Your task to perform on an android device: Go to calendar. Show me events next week Image 0: 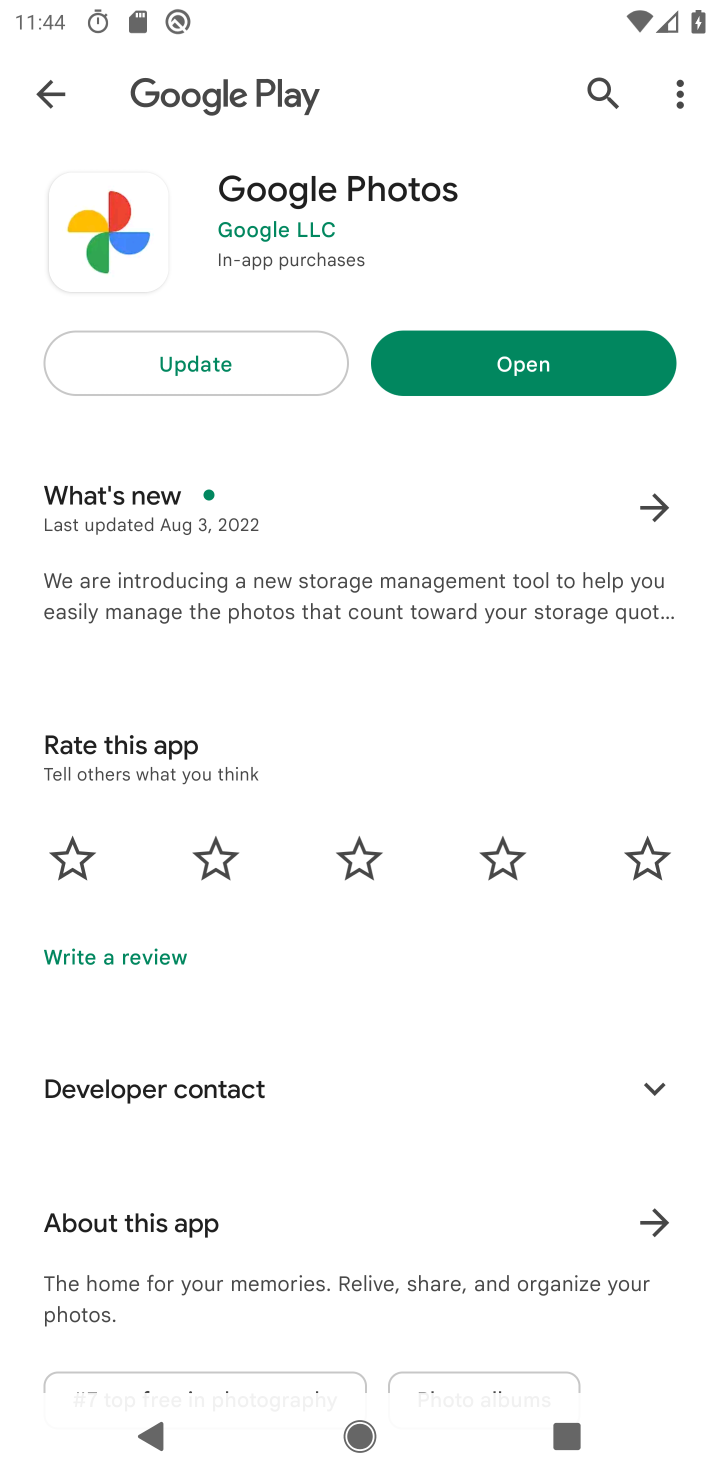
Step 0: press home button
Your task to perform on an android device: Go to calendar. Show me events next week Image 1: 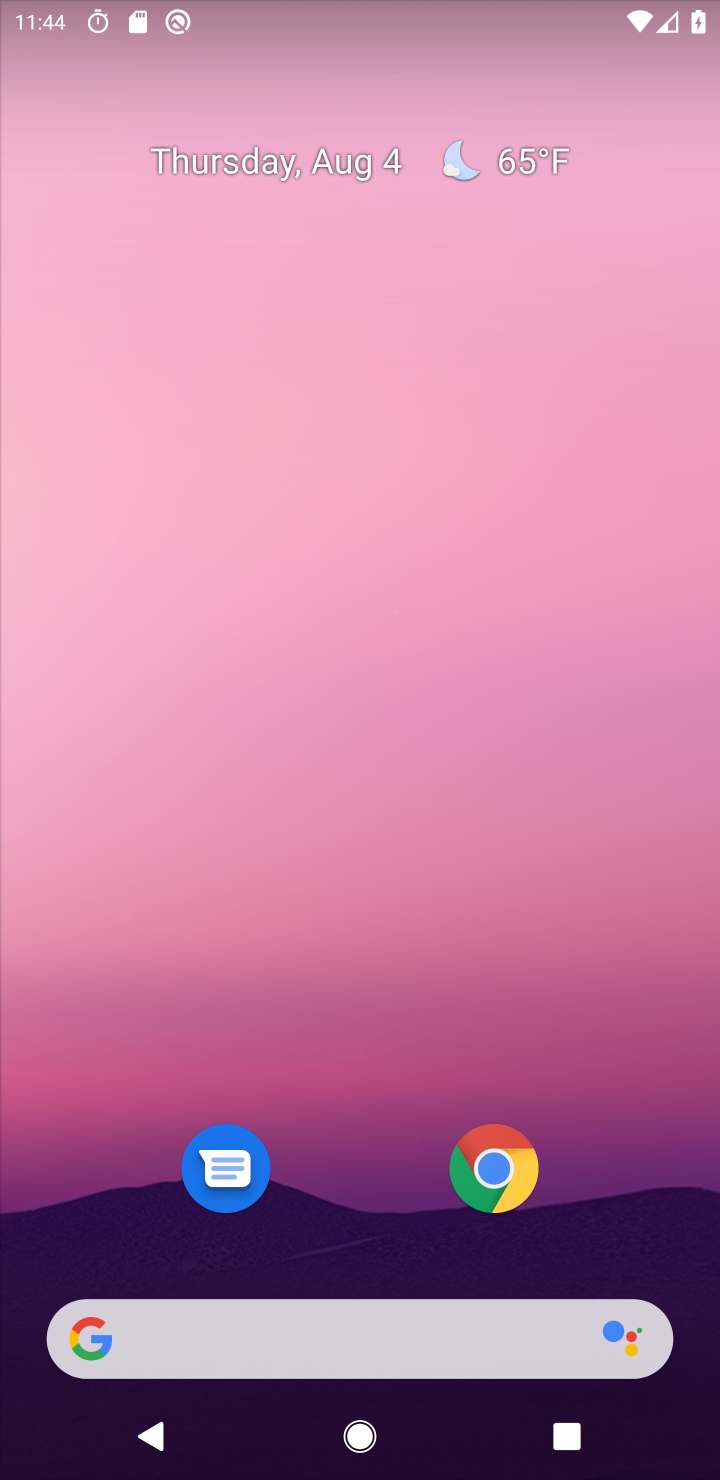
Step 1: drag from (351, 1273) to (343, 45)
Your task to perform on an android device: Go to calendar. Show me events next week Image 2: 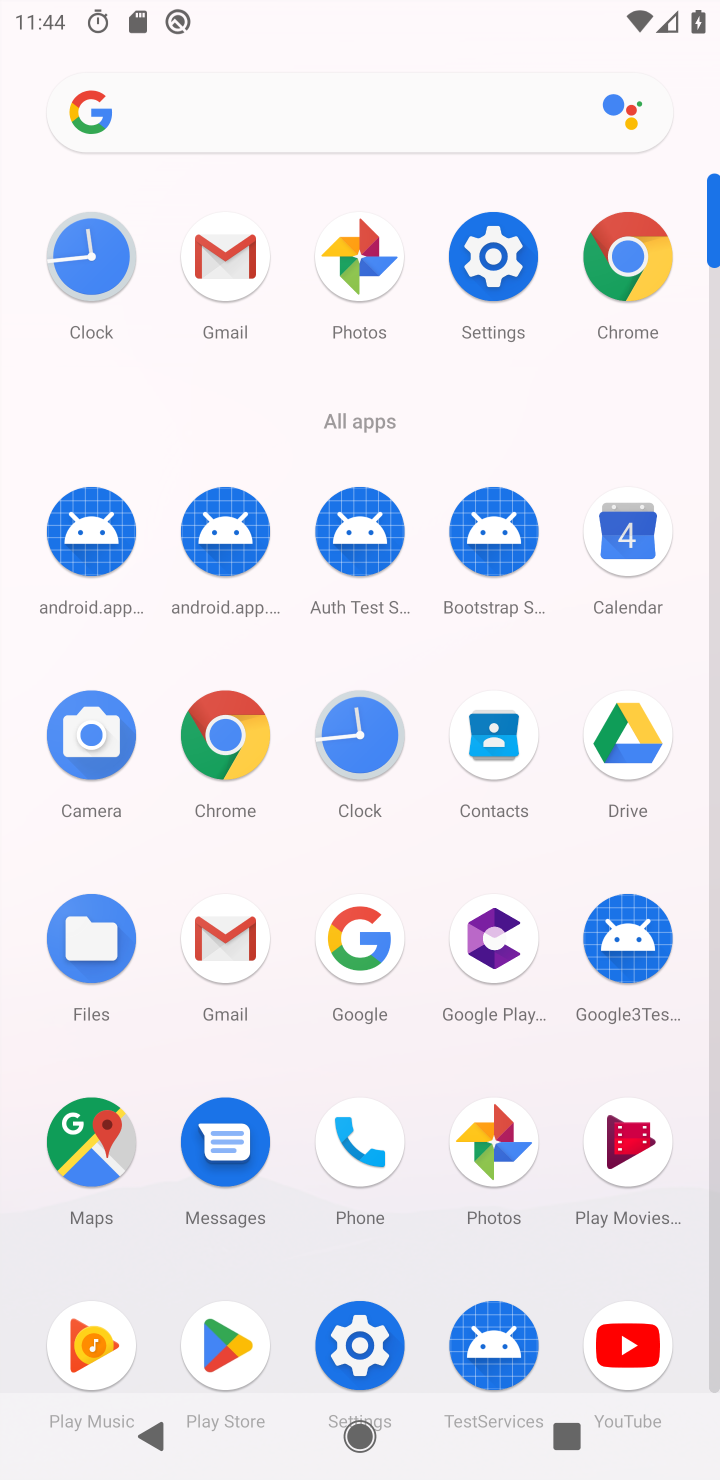
Step 2: click (630, 567)
Your task to perform on an android device: Go to calendar. Show me events next week Image 3: 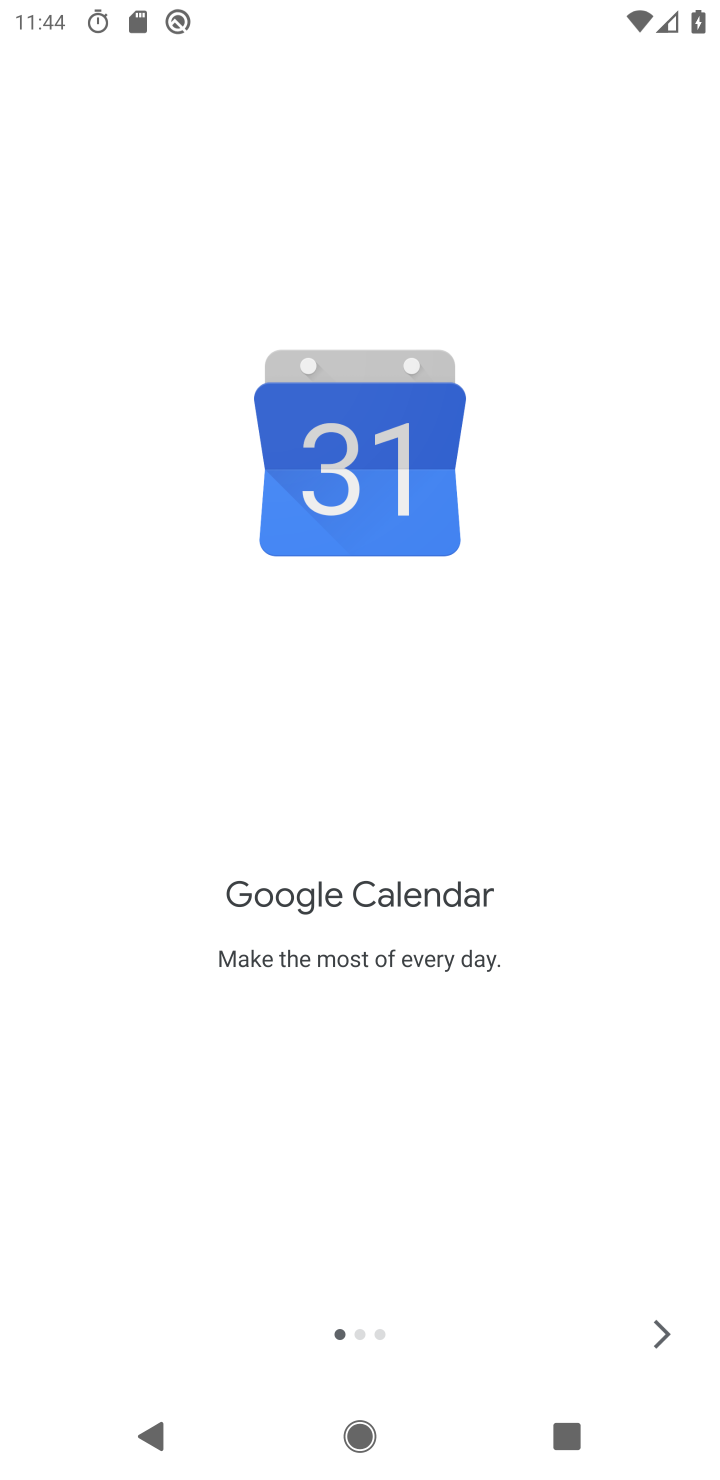
Step 3: click (653, 1313)
Your task to perform on an android device: Go to calendar. Show me events next week Image 4: 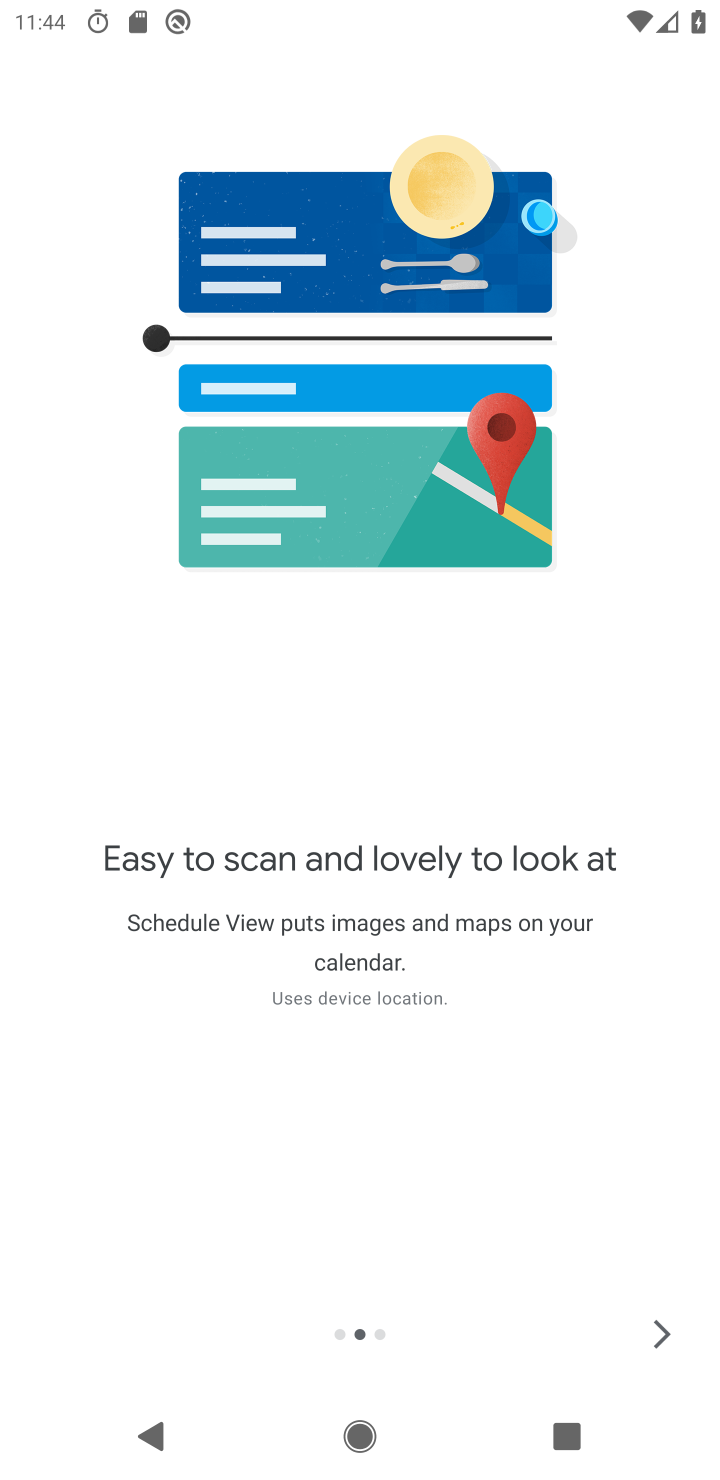
Step 4: click (651, 1337)
Your task to perform on an android device: Go to calendar. Show me events next week Image 5: 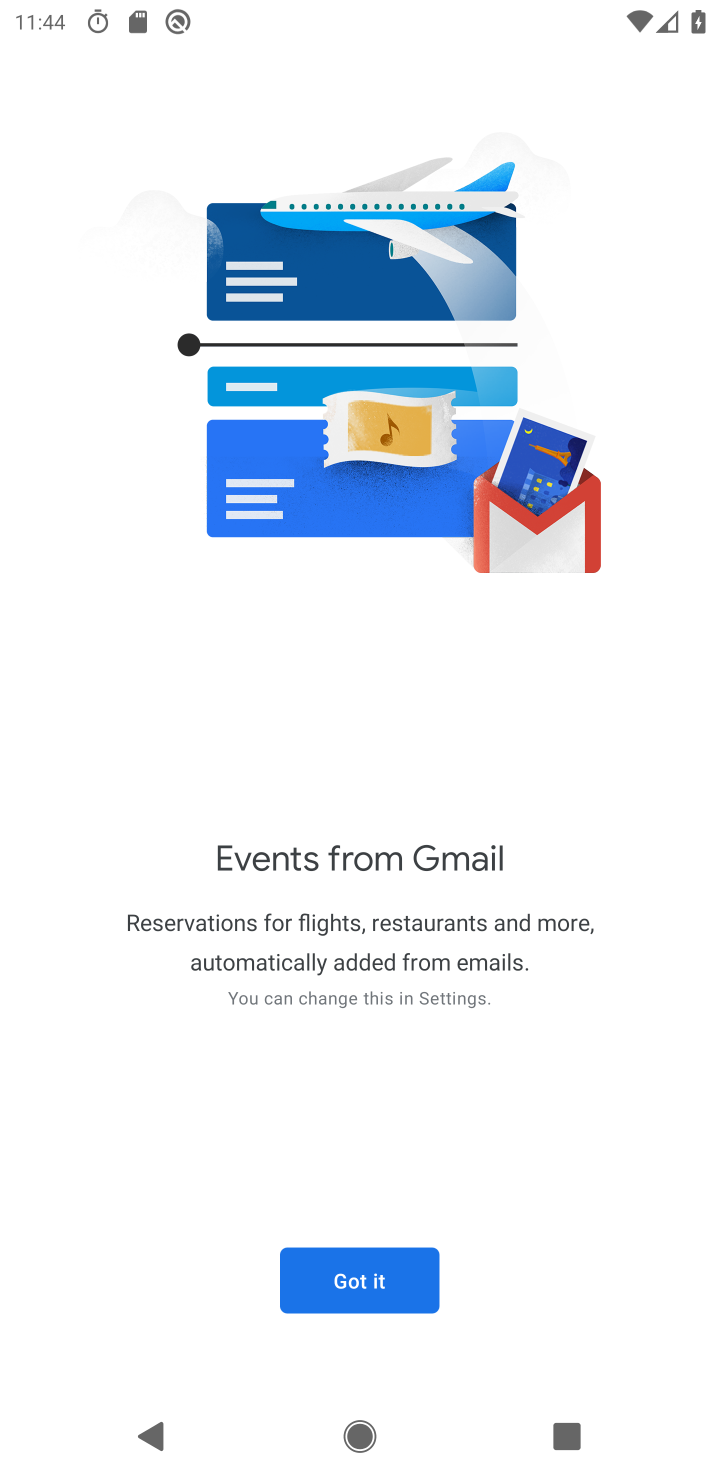
Step 5: click (349, 1294)
Your task to perform on an android device: Go to calendar. Show me events next week Image 6: 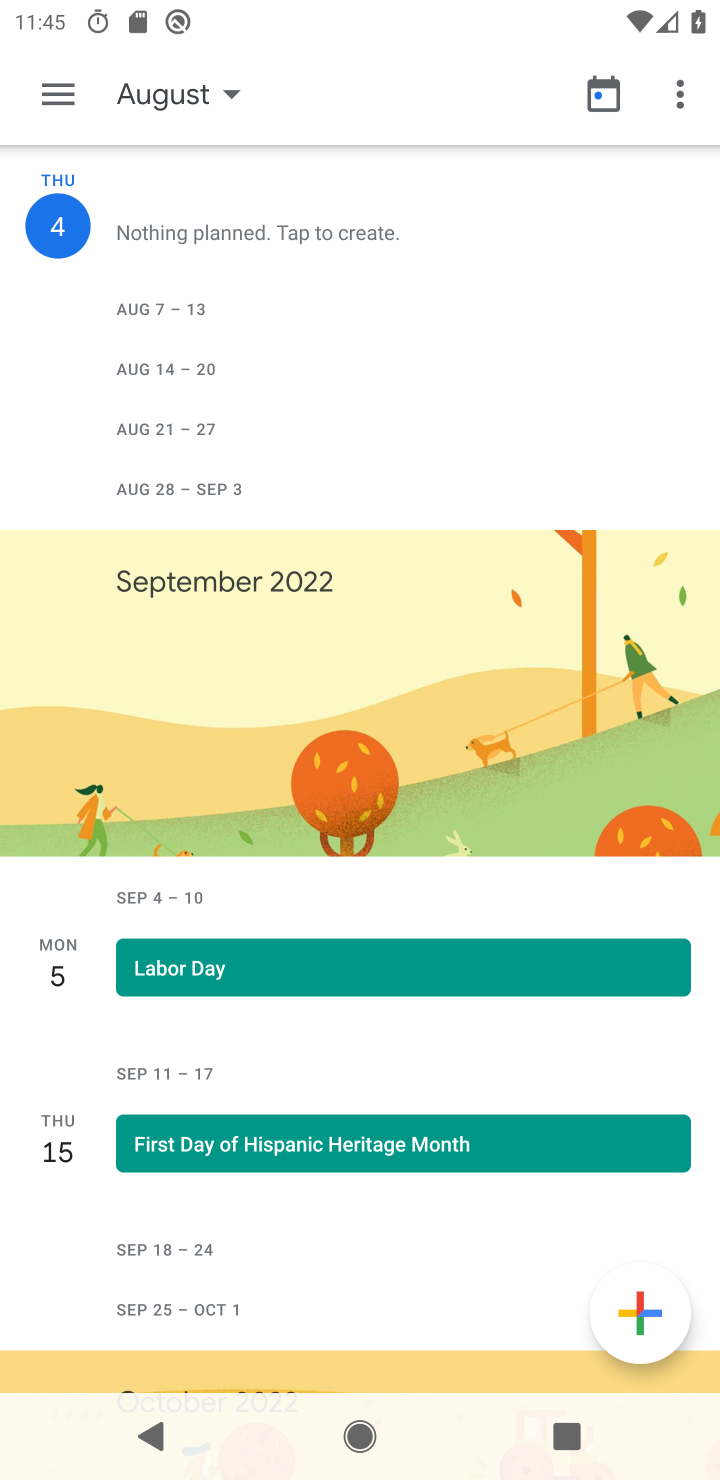
Step 6: click (51, 97)
Your task to perform on an android device: Go to calendar. Show me events next week Image 7: 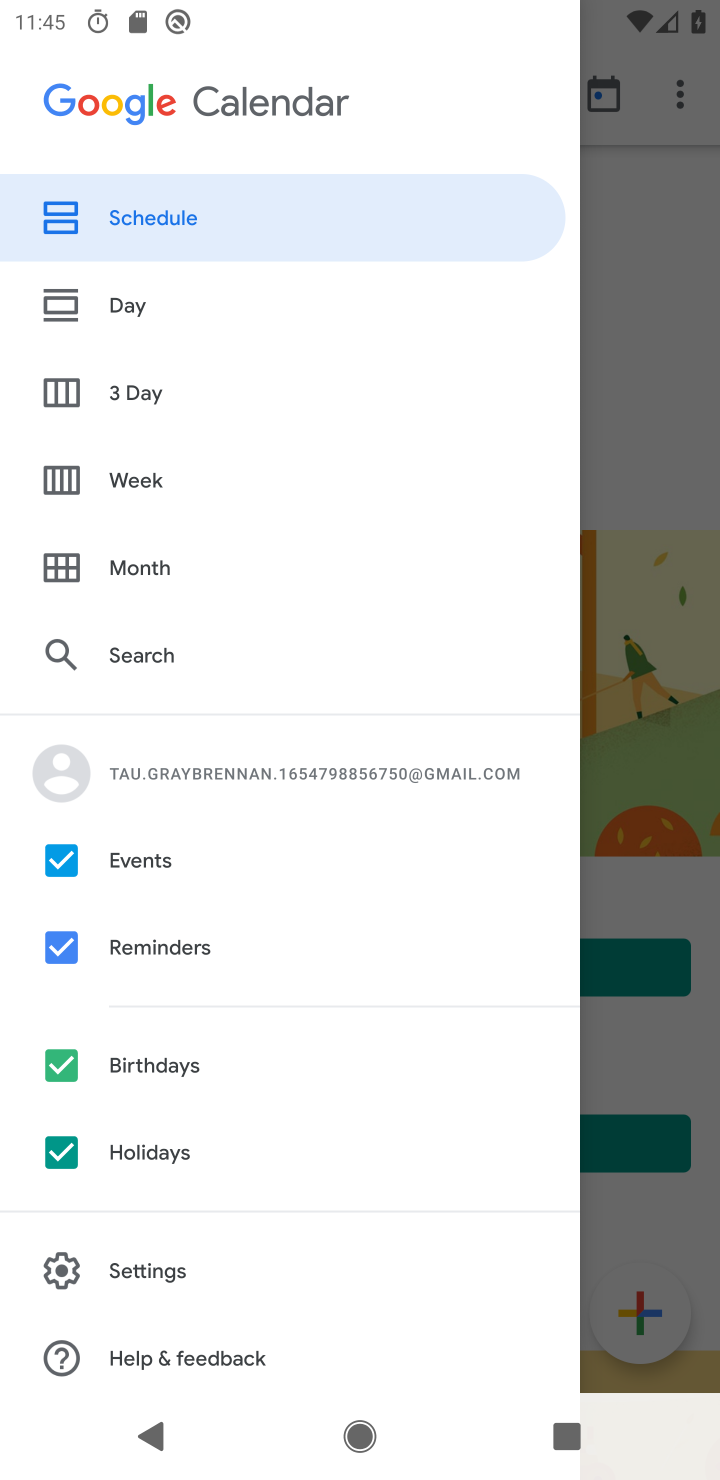
Step 7: click (117, 947)
Your task to perform on an android device: Go to calendar. Show me events next week Image 8: 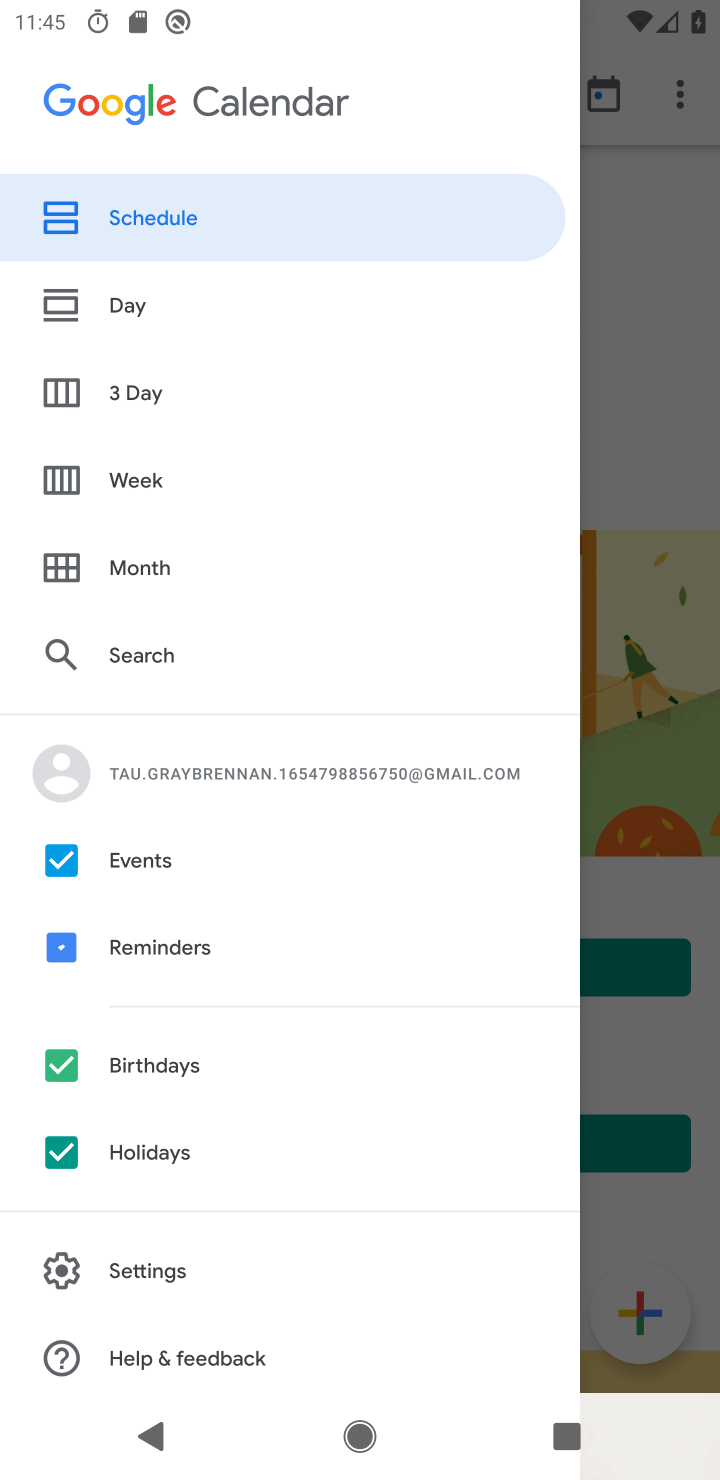
Step 8: click (117, 1074)
Your task to perform on an android device: Go to calendar. Show me events next week Image 9: 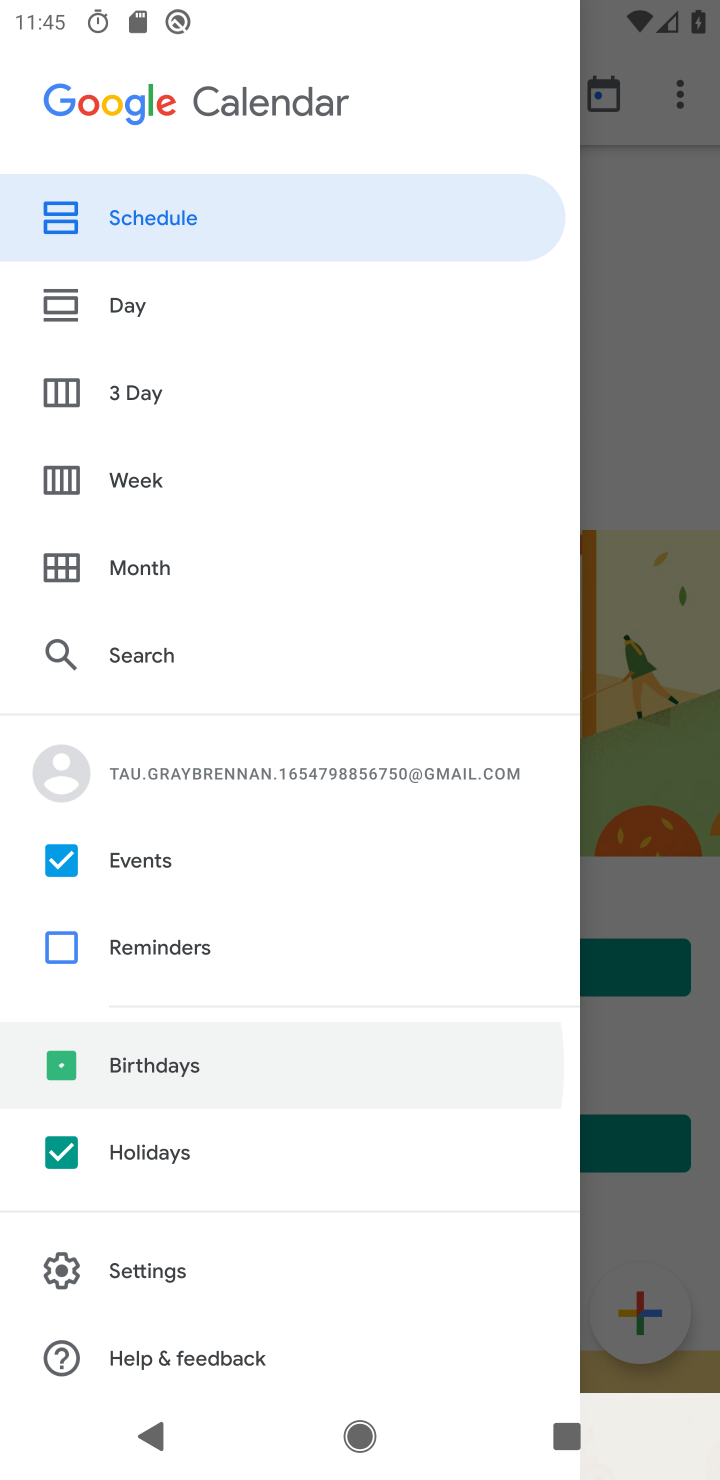
Step 9: click (109, 1158)
Your task to perform on an android device: Go to calendar. Show me events next week Image 10: 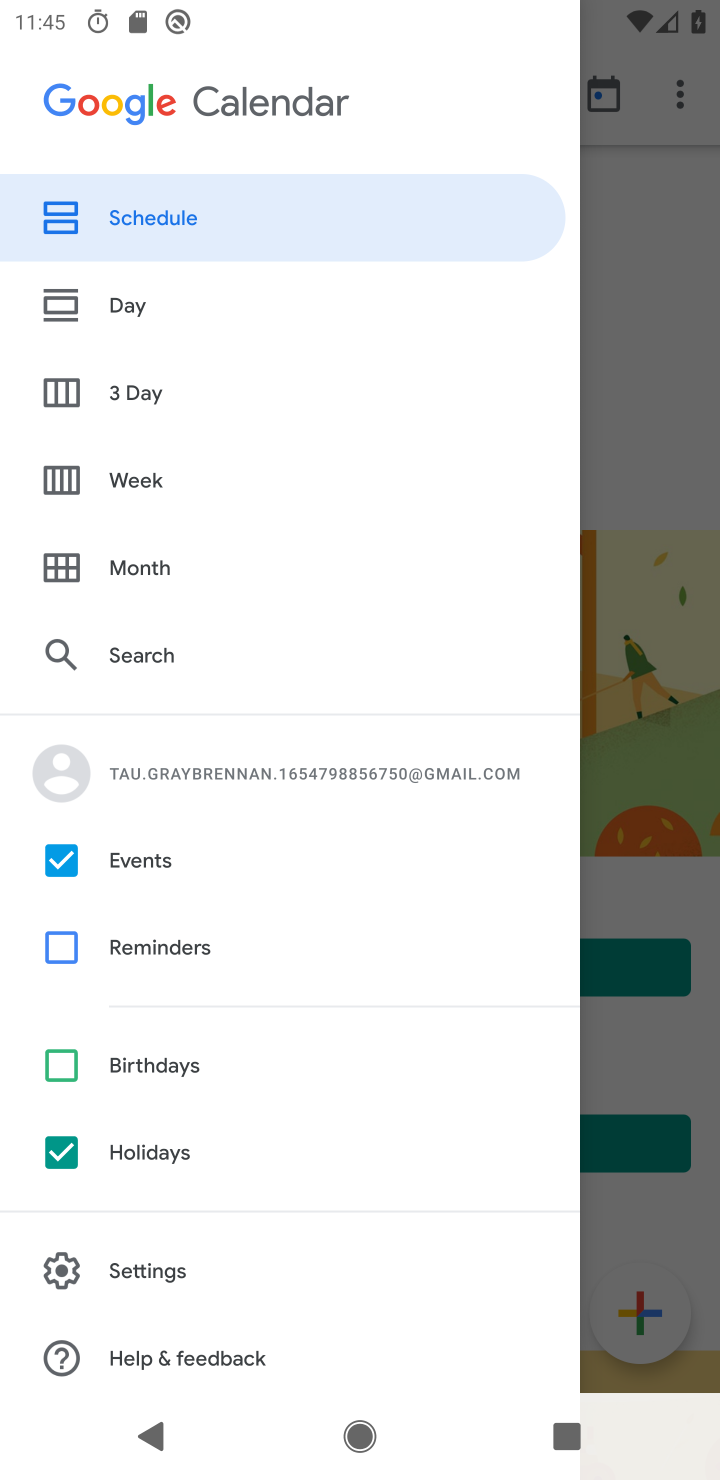
Step 10: click (105, 1154)
Your task to perform on an android device: Go to calendar. Show me events next week Image 11: 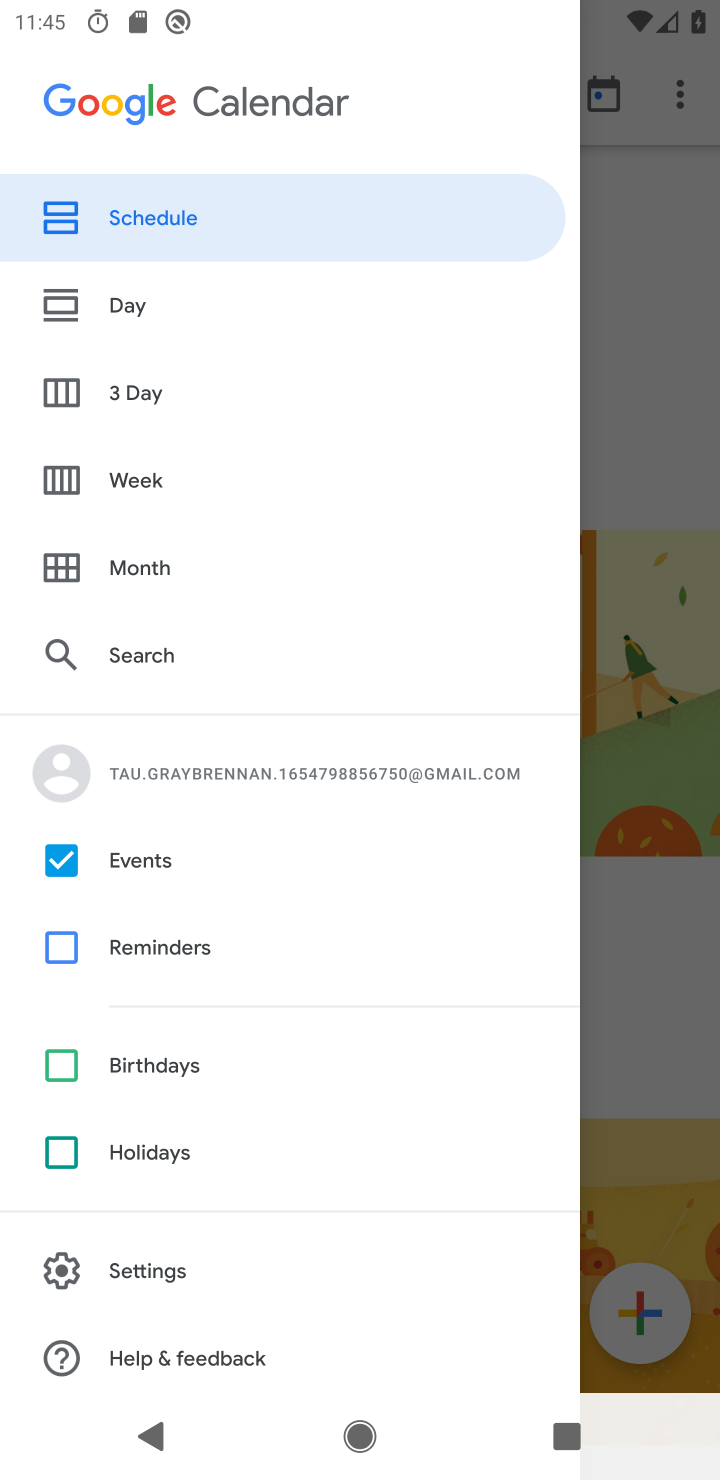
Step 11: click (153, 481)
Your task to perform on an android device: Go to calendar. Show me events next week Image 12: 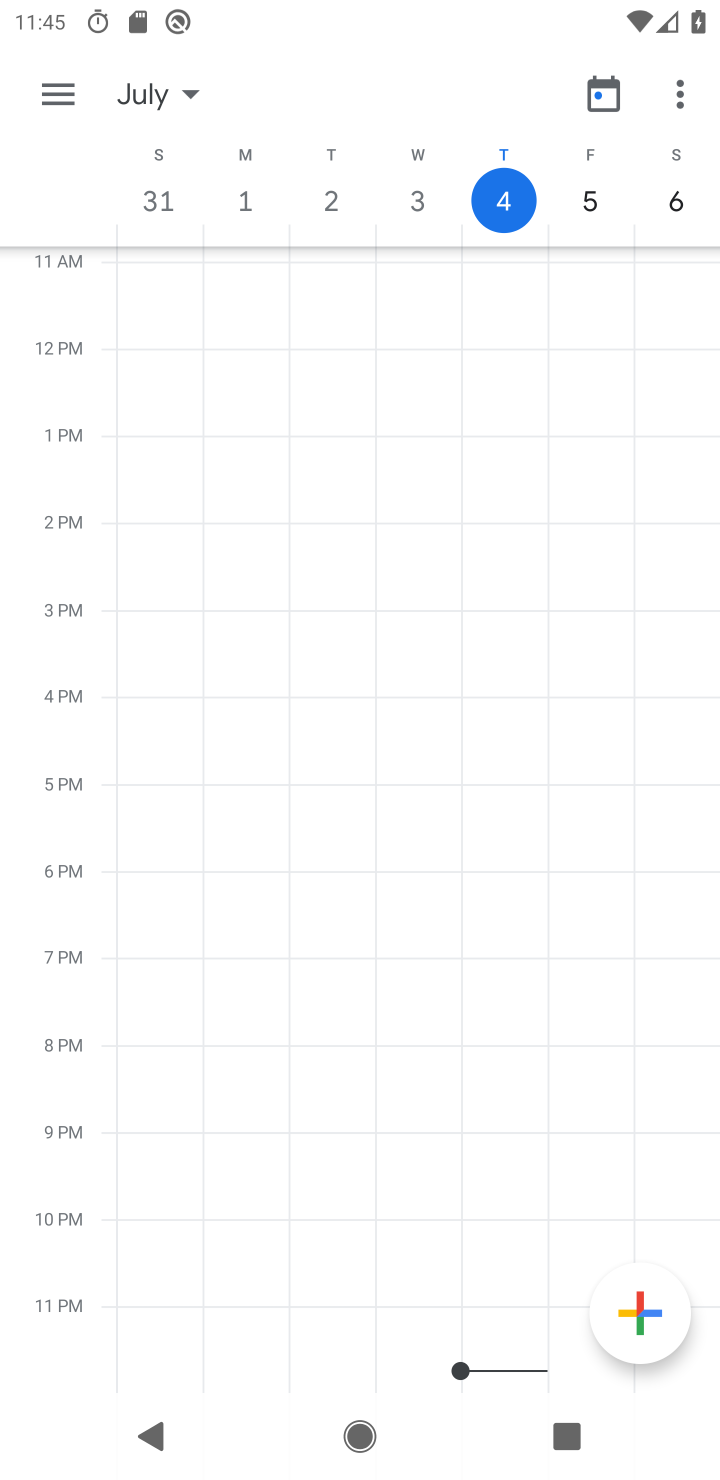
Step 12: task complete